Your task to perform on an android device: Clear the shopping cart on amazon. Search for "duracell triple a" on amazon, select the first entry, and add it to the cart. Image 0: 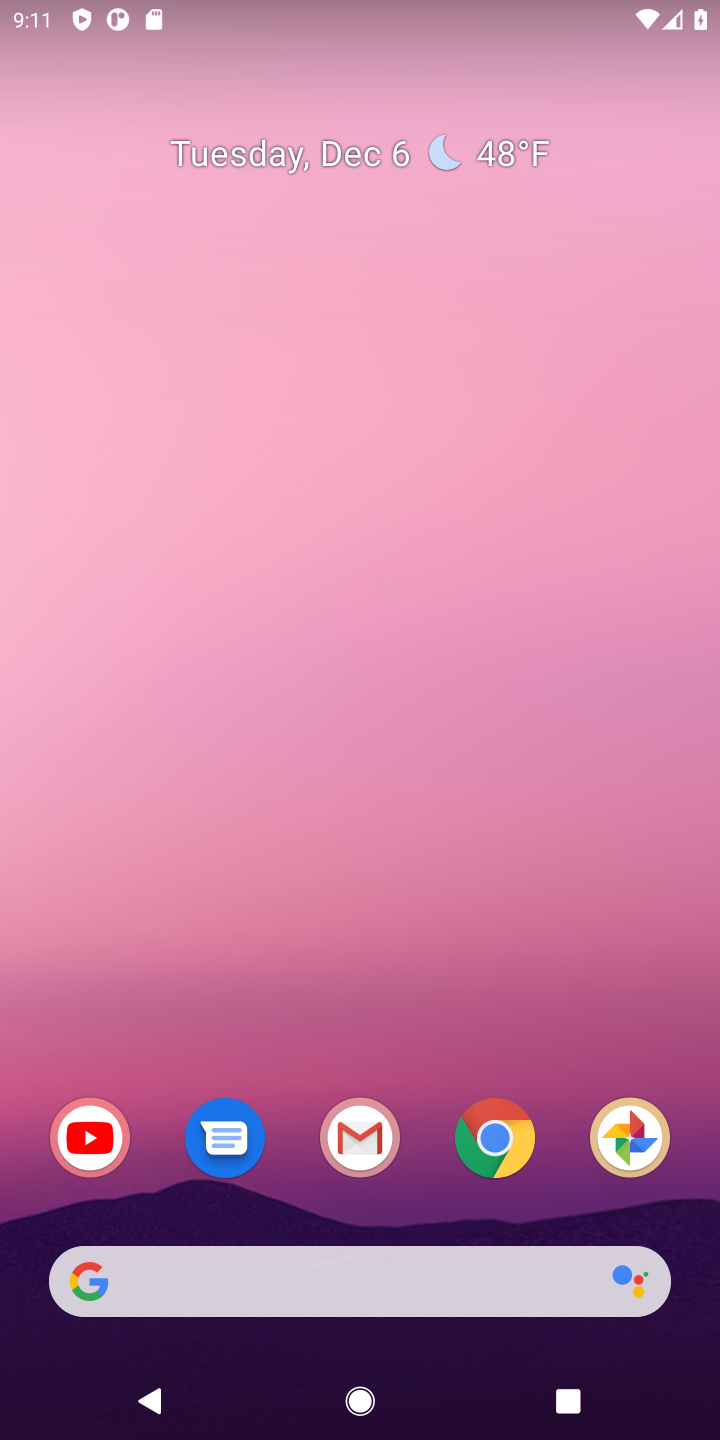
Step 0: click (495, 1140)
Your task to perform on an android device: Clear the shopping cart on amazon. Search for "duracell triple a" on amazon, select the first entry, and add it to the cart. Image 1: 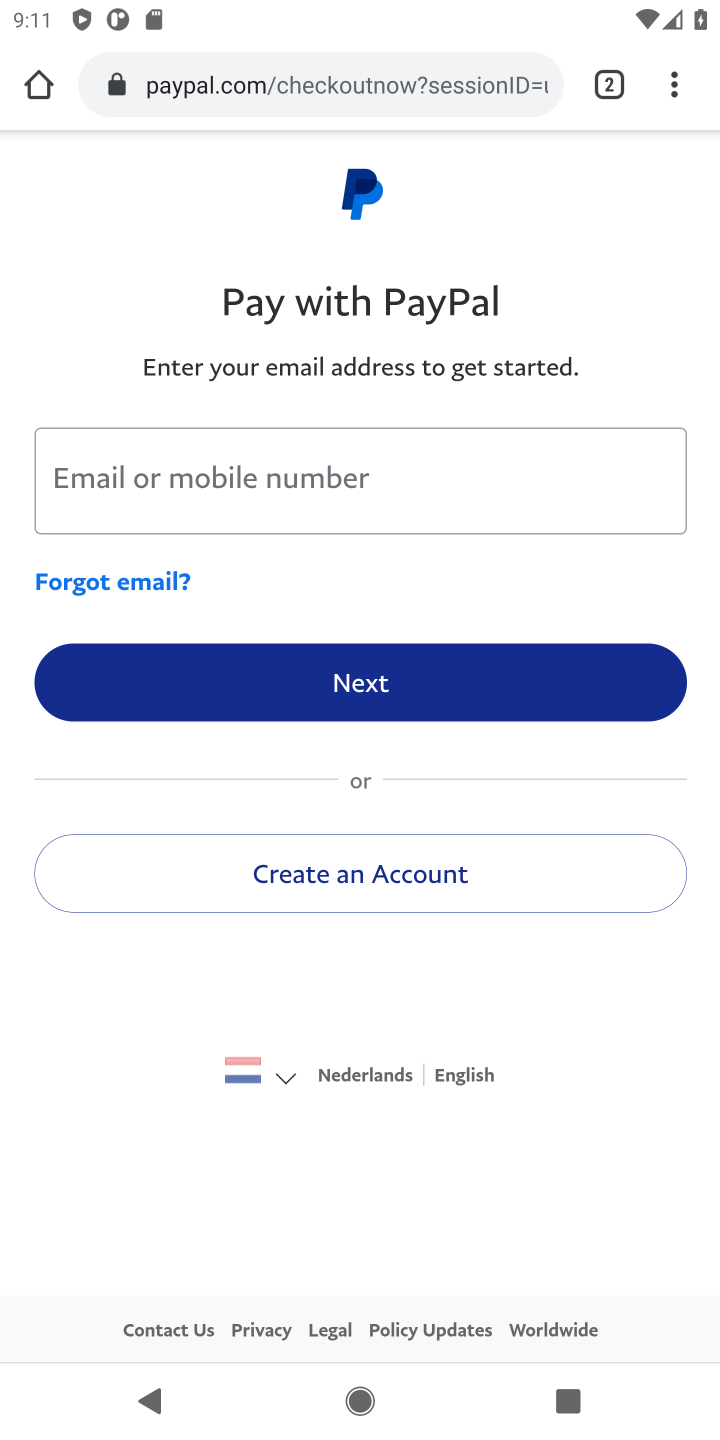
Step 1: click (296, 89)
Your task to perform on an android device: Clear the shopping cart on amazon. Search for "duracell triple a" on amazon, select the first entry, and add it to the cart. Image 2: 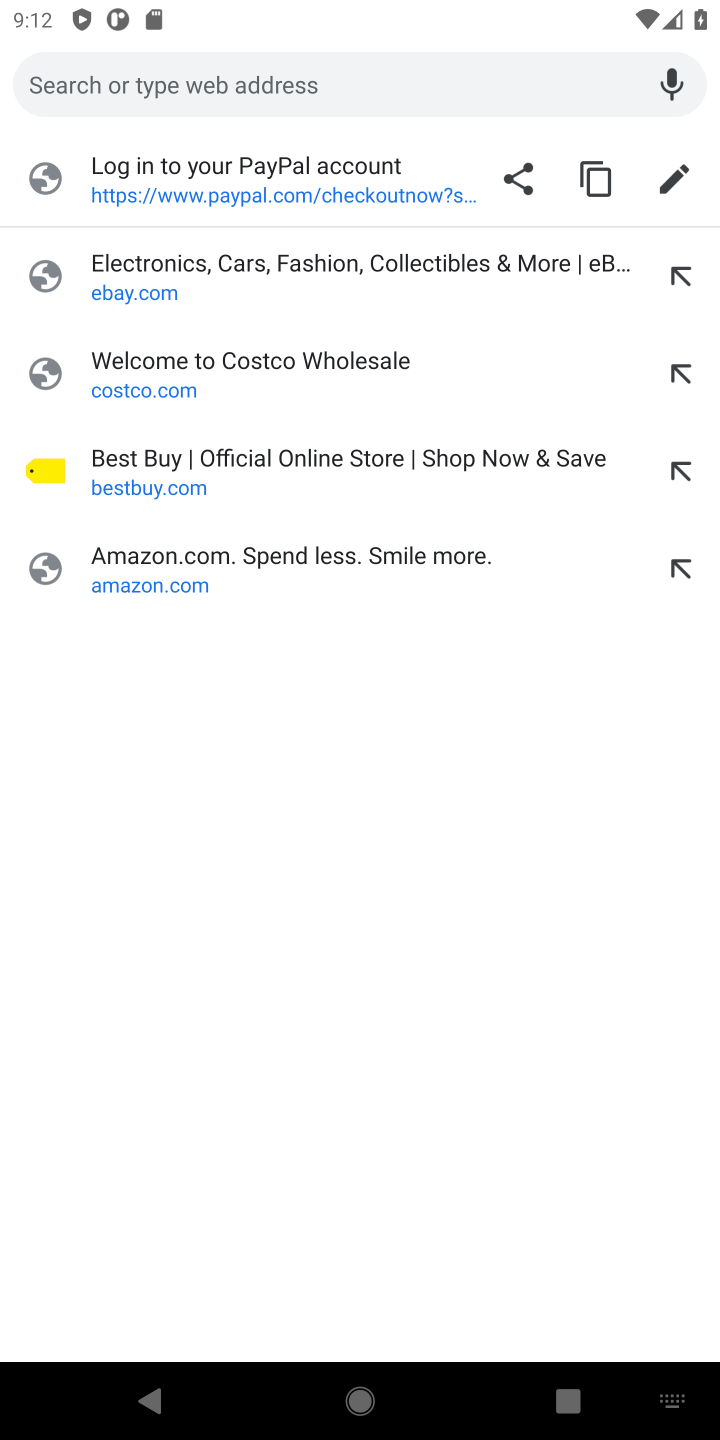
Step 2: click (162, 594)
Your task to perform on an android device: Clear the shopping cart on amazon. Search for "duracell triple a" on amazon, select the first entry, and add it to the cart. Image 3: 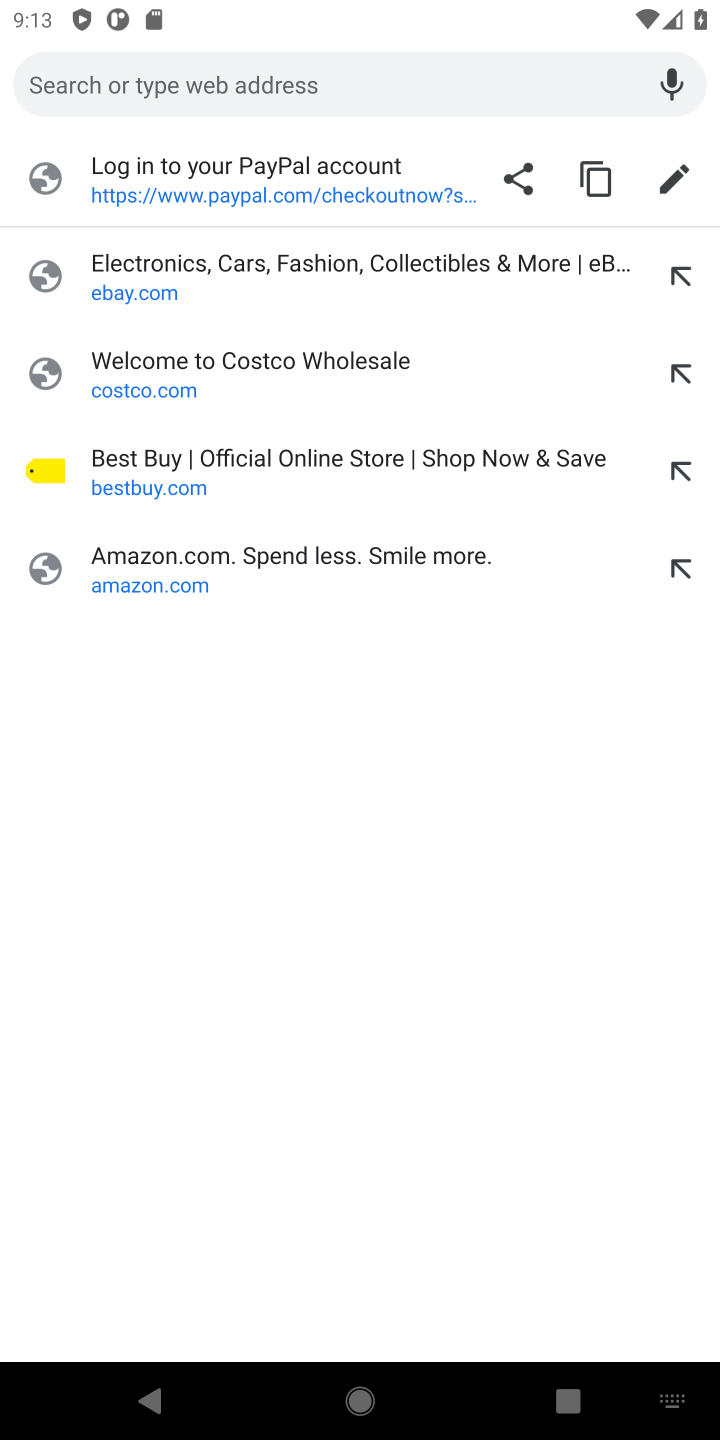
Step 3: click (147, 592)
Your task to perform on an android device: Clear the shopping cart on amazon. Search for "duracell triple a" on amazon, select the first entry, and add it to the cart. Image 4: 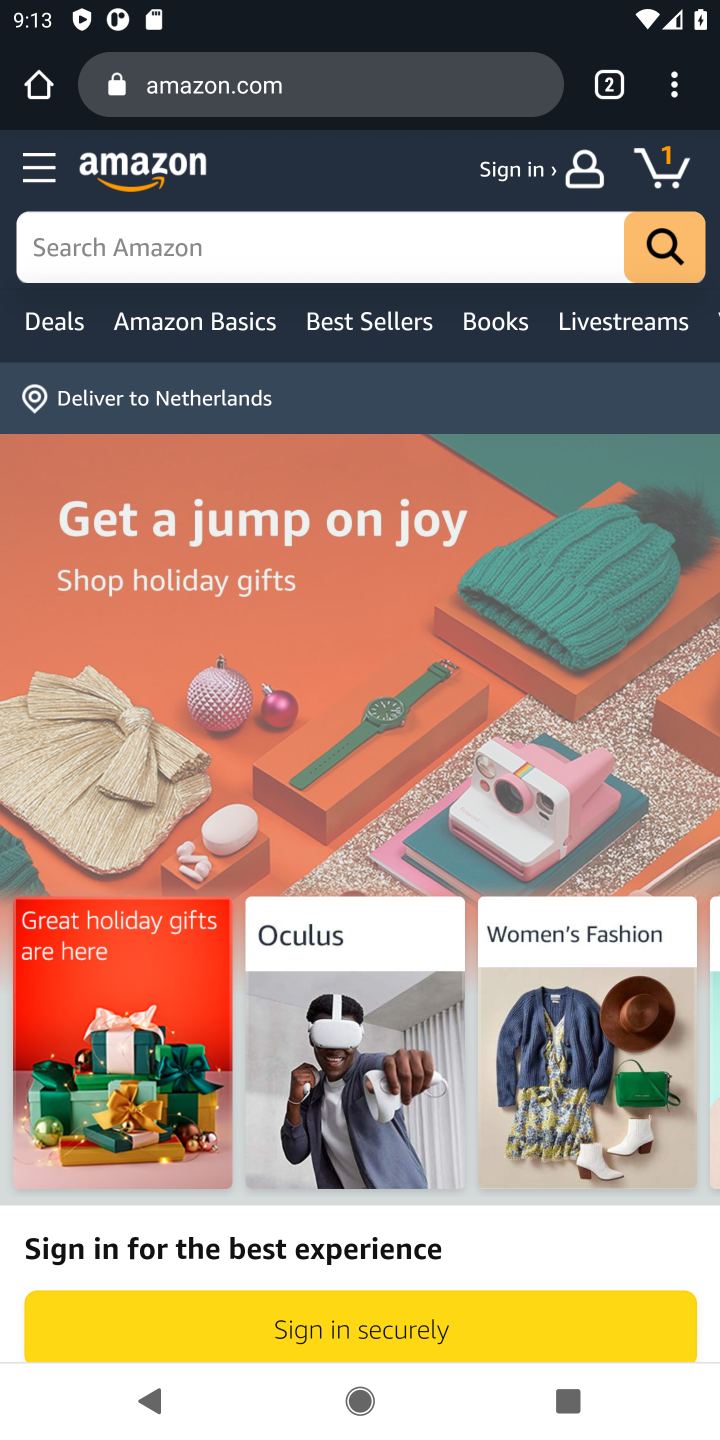
Step 4: click (667, 173)
Your task to perform on an android device: Clear the shopping cart on amazon. Search for "duracell triple a" on amazon, select the first entry, and add it to the cart. Image 5: 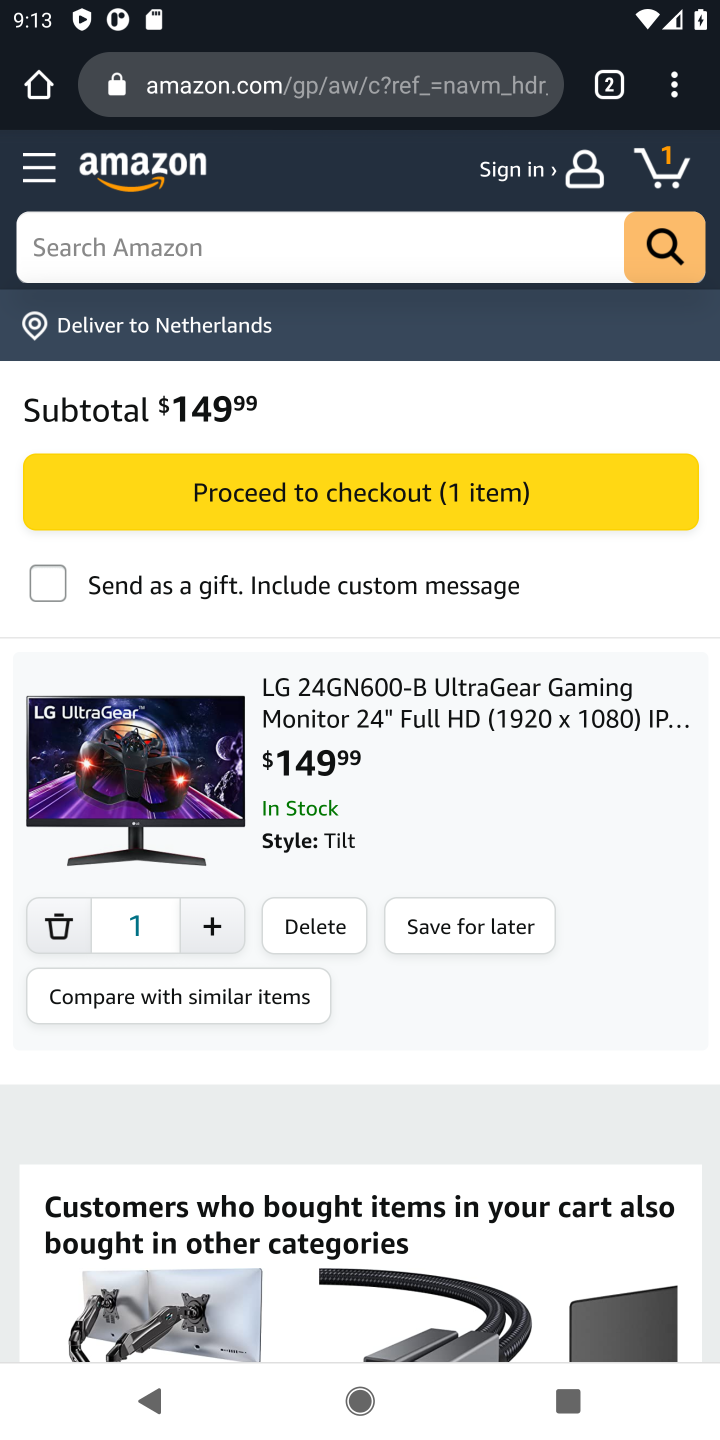
Step 5: click (312, 926)
Your task to perform on an android device: Clear the shopping cart on amazon. Search for "duracell triple a" on amazon, select the first entry, and add it to the cart. Image 6: 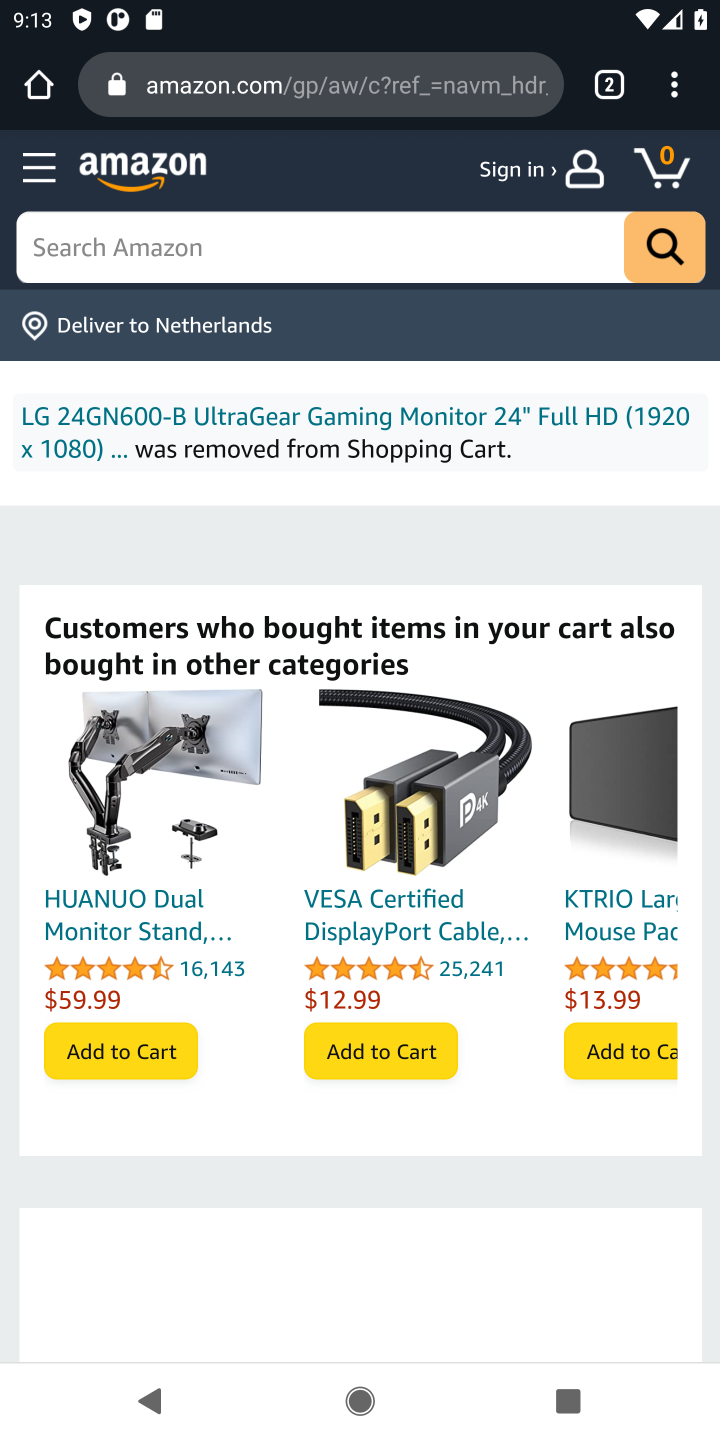
Step 6: click (104, 243)
Your task to perform on an android device: Clear the shopping cart on amazon. Search for "duracell triple a" on amazon, select the first entry, and add it to the cart. Image 7: 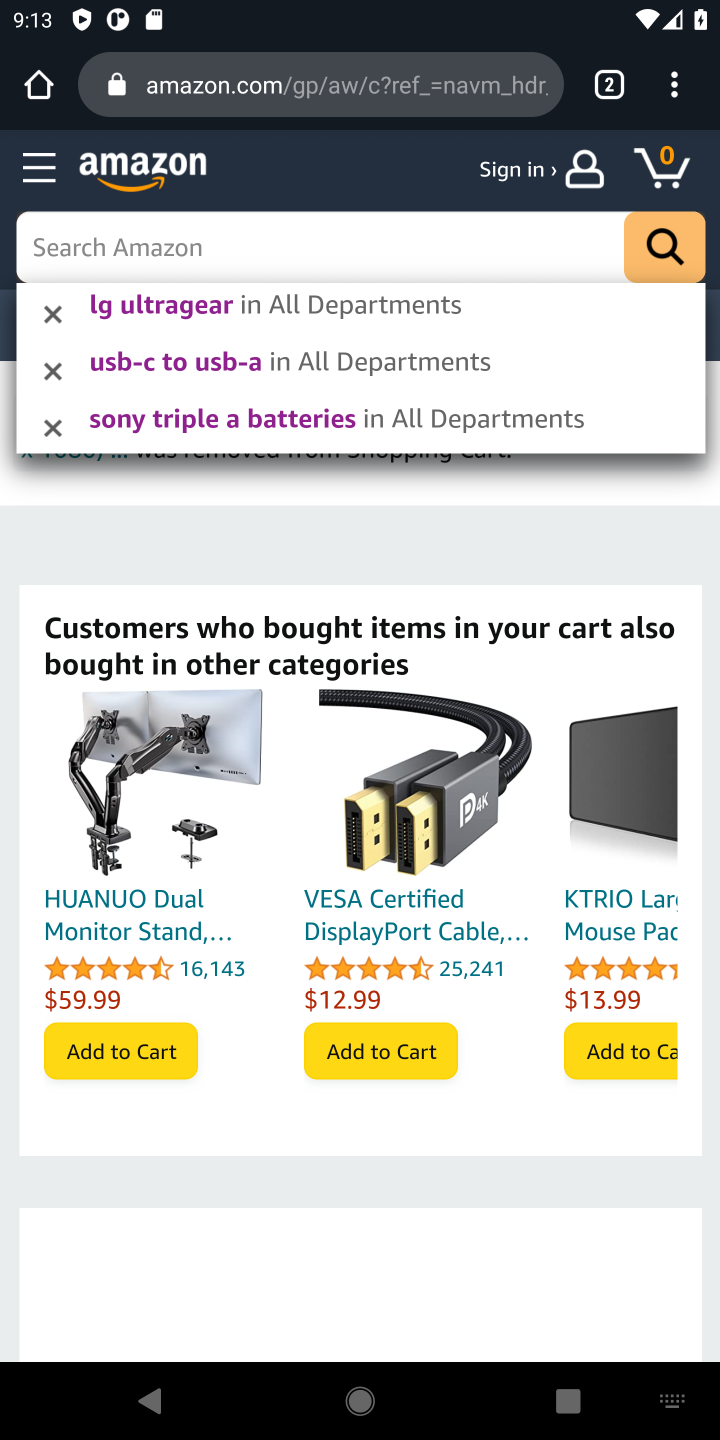
Step 7: type "duracell triple a"
Your task to perform on an android device: Clear the shopping cart on amazon. Search for "duracell triple a" on amazon, select the first entry, and add it to the cart. Image 8: 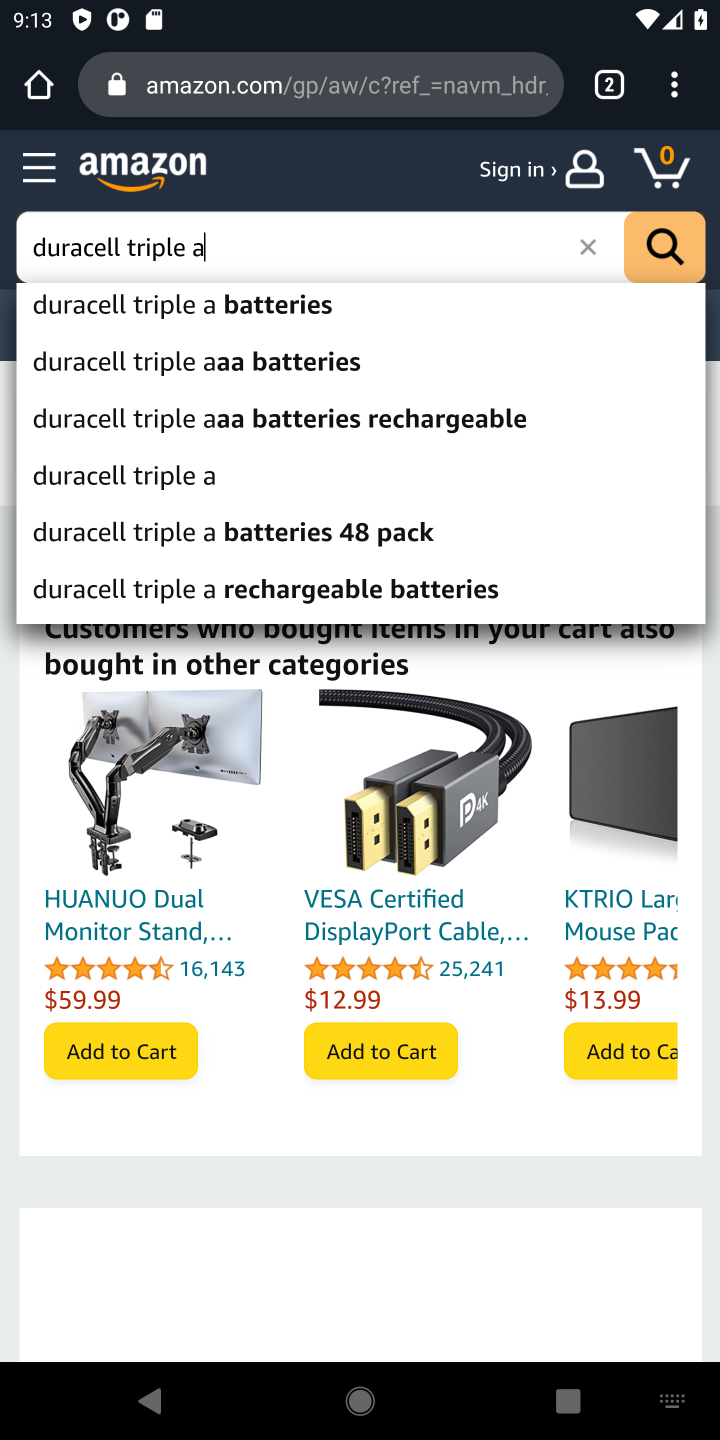
Step 8: click (250, 318)
Your task to perform on an android device: Clear the shopping cart on amazon. Search for "duracell triple a" on amazon, select the first entry, and add it to the cart. Image 9: 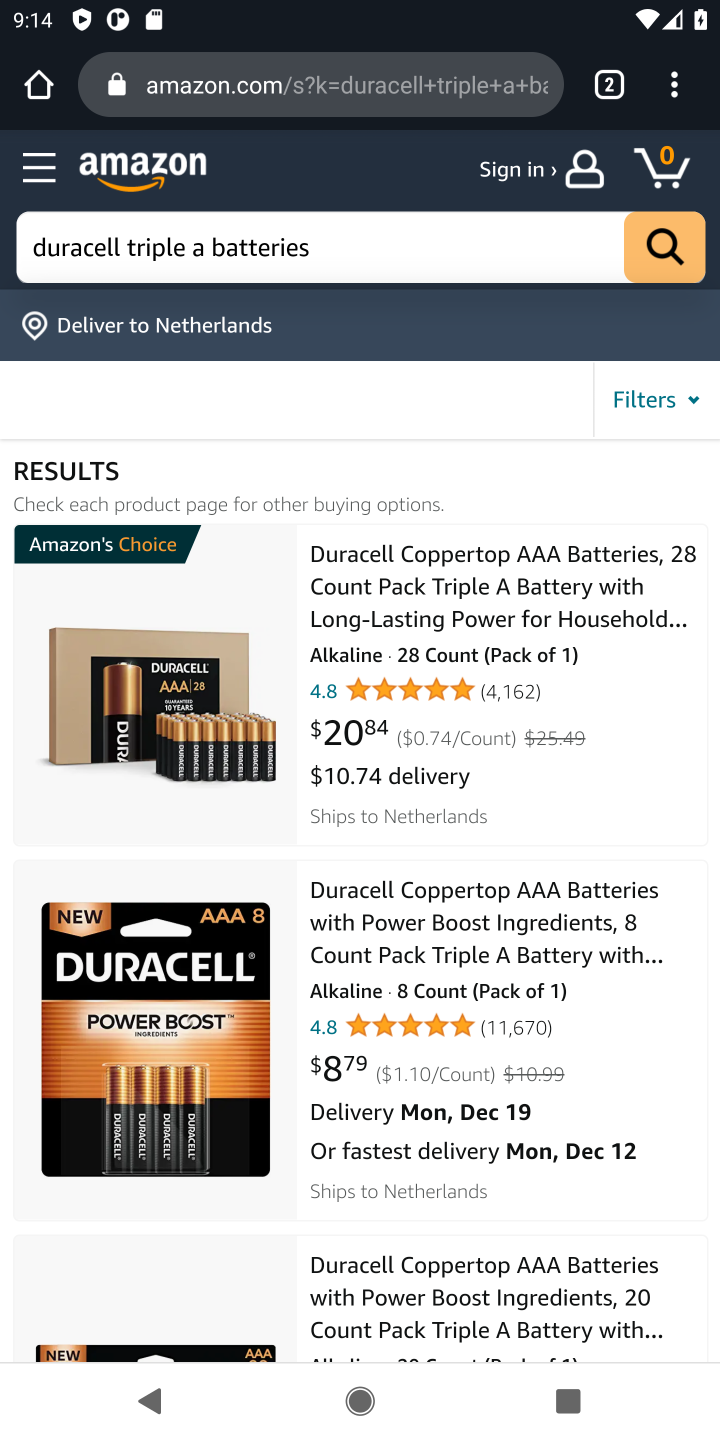
Step 9: click (374, 616)
Your task to perform on an android device: Clear the shopping cart on amazon. Search for "duracell triple a" on amazon, select the first entry, and add it to the cart. Image 10: 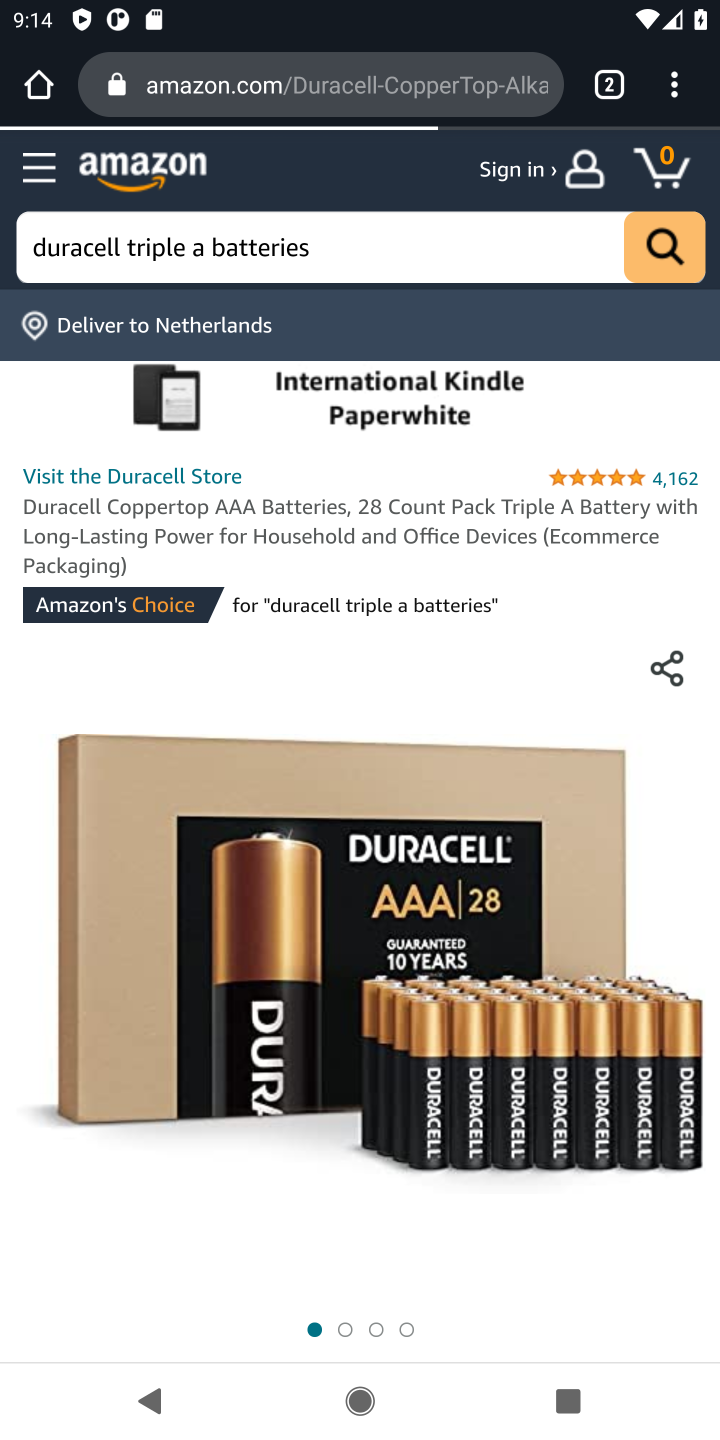
Step 10: drag from (276, 1009) to (244, 531)
Your task to perform on an android device: Clear the shopping cart on amazon. Search for "duracell triple a" on amazon, select the first entry, and add it to the cart. Image 11: 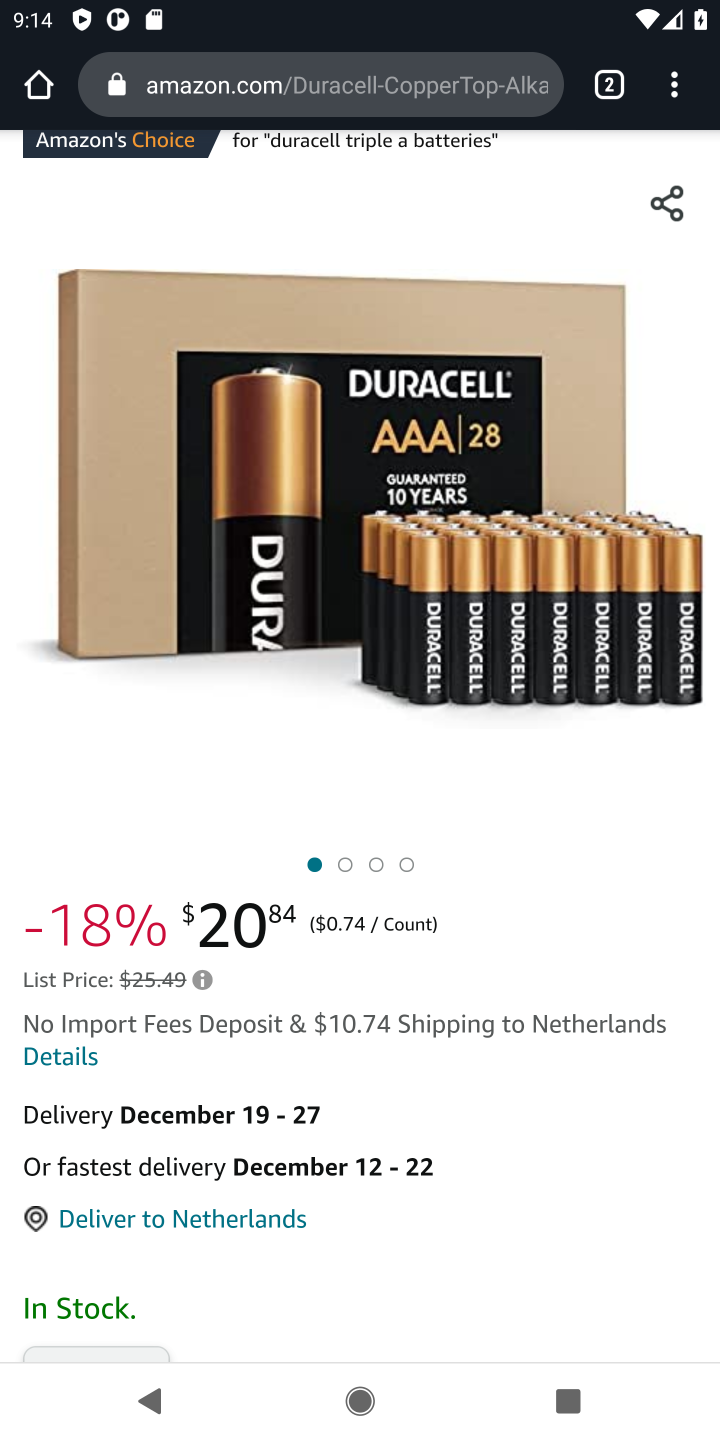
Step 11: drag from (298, 1105) to (298, 537)
Your task to perform on an android device: Clear the shopping cart on amazon. Search for "duracell triple a" on amazon, select the first entry, and add it to the cart. Image 12: 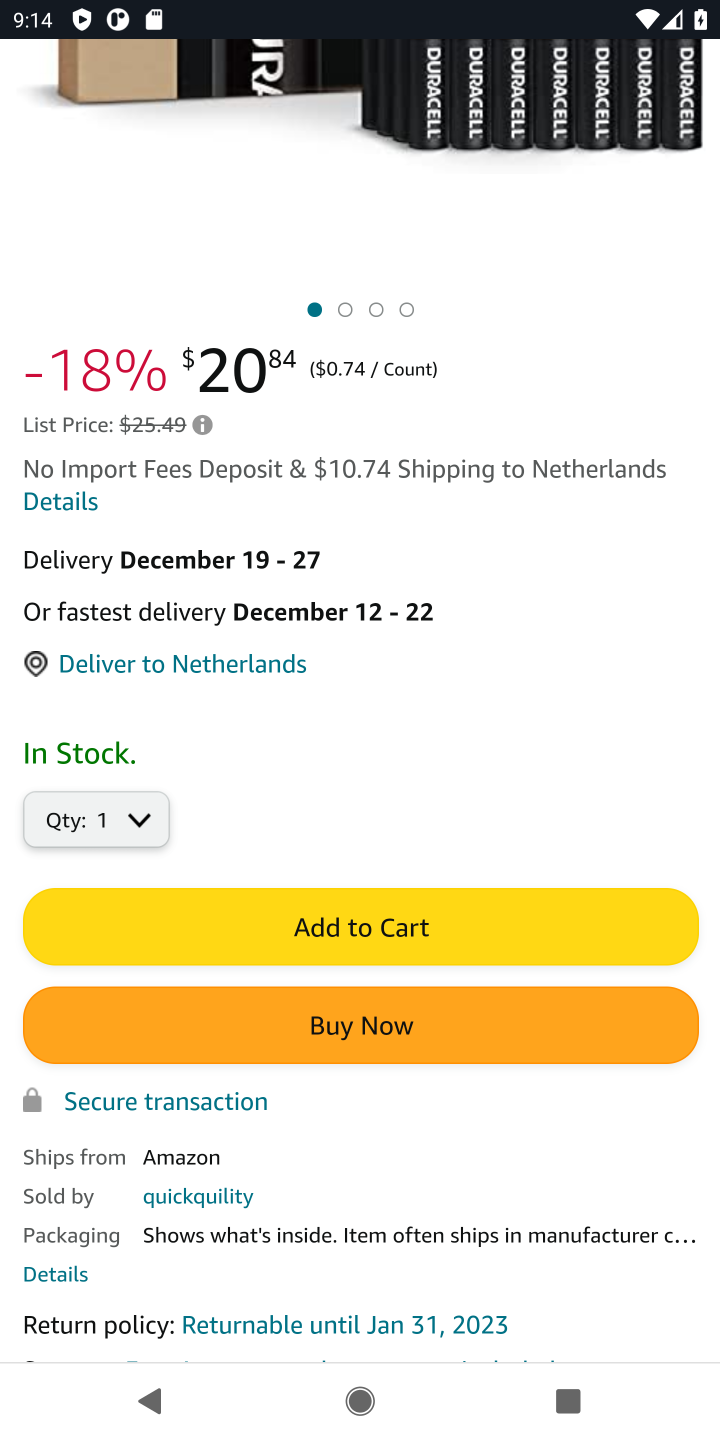
Step 12: click (302, 924)
Your task to perform on an android device: Clear the shopping cart on amazon. Search for "duracell triple a" on amazon, select the first entry, and add it to the cart. Image 13: 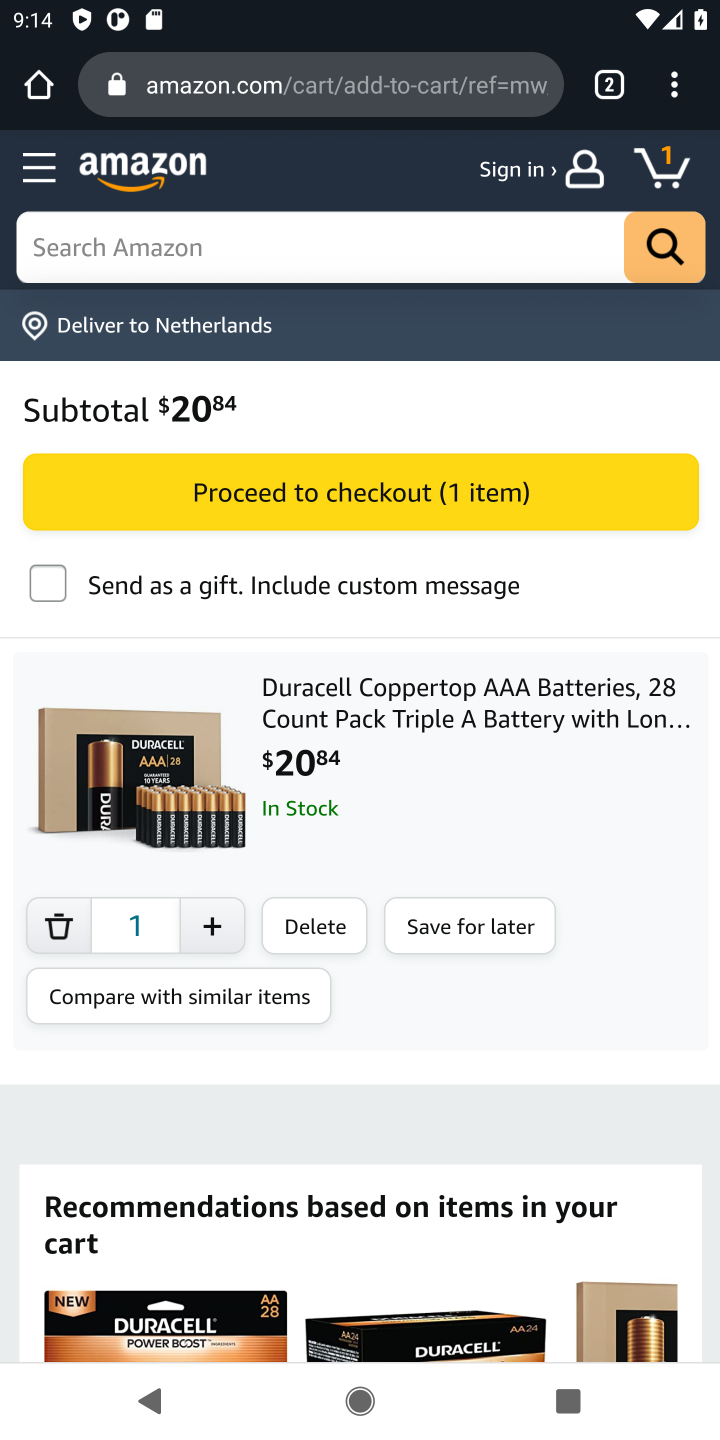
Step 13: task complete